Your task to perform on an android device: see tabs open on other devices in the chrome app Image 0: 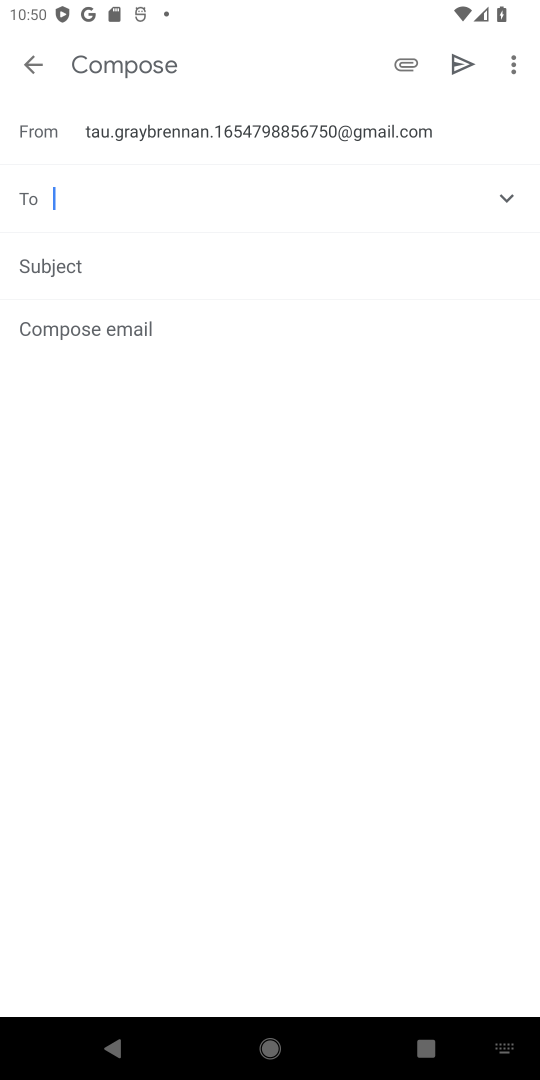
Step 0: press home button
Your task to perform on an android device: see tabs open on other devices in the chrome app Image 1: 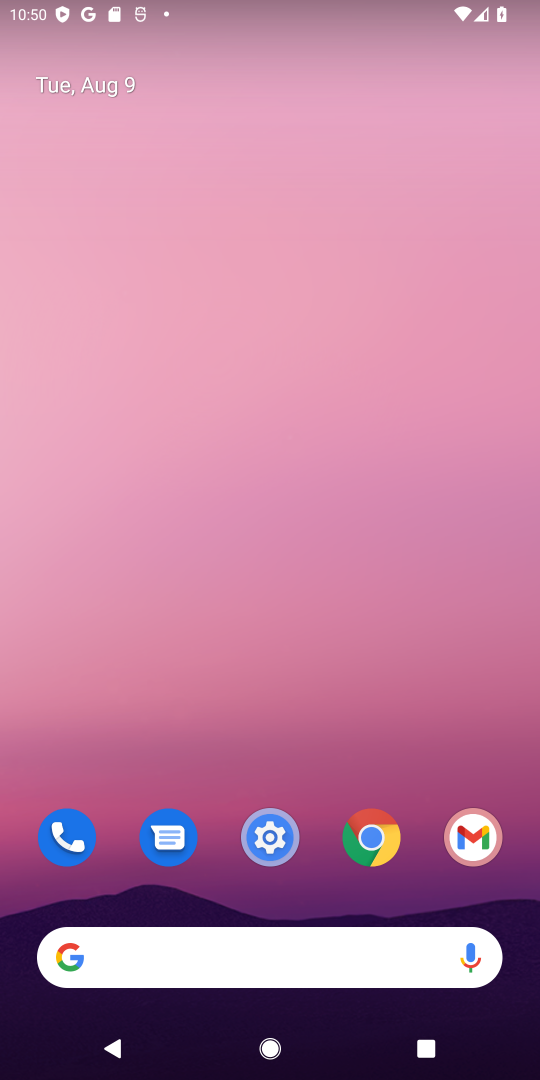
Step 1: drag from (331, 913) to (294, 122)
Your task to perform on an android device: see tabs open on other devices in the chrome app Image 2: 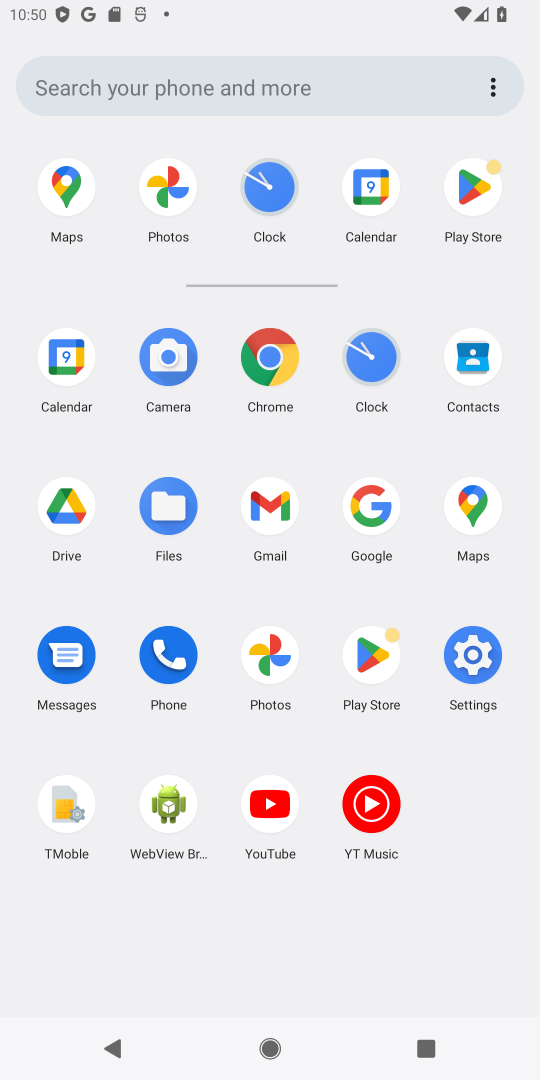
Step 2: click (274, 354)
Your task to perform on an android device: see tabs open on other devices in the chrome app Image 3: 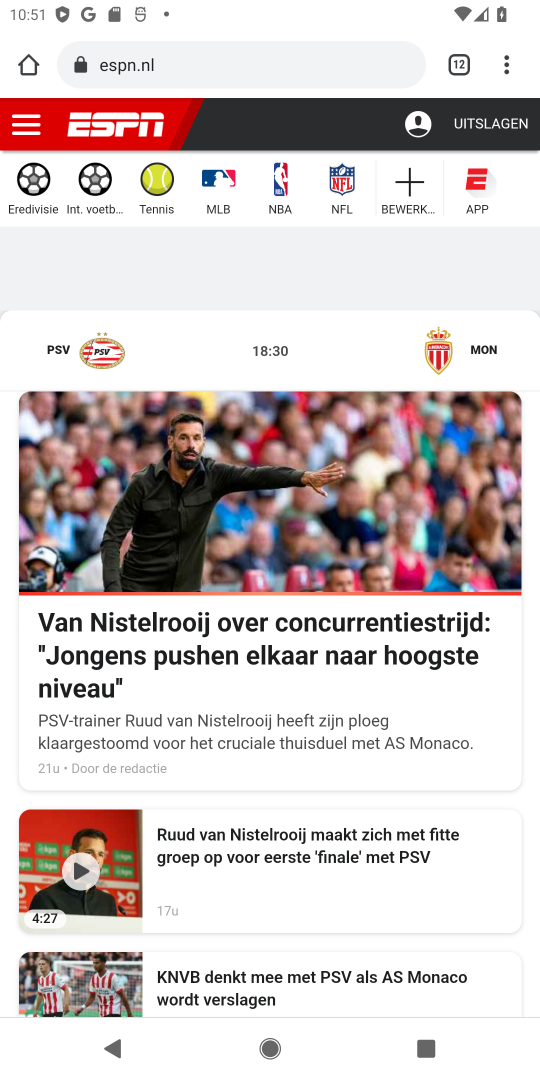
Step 3: task complete